Your task to perform on an android device: show emergency info Image 0: 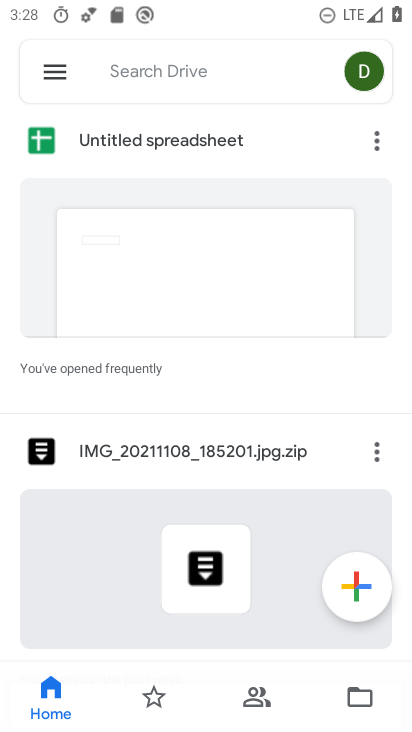
Step 0: press home button
Your task to perform on an android device: show emergency info Image 1: 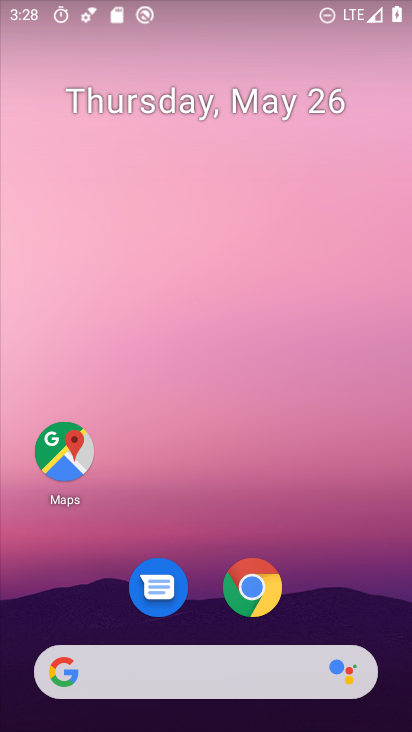
Step 1: drag from (301, 423) to (345, 125)
Your task to perform on an android device: show emergency info Image 2: 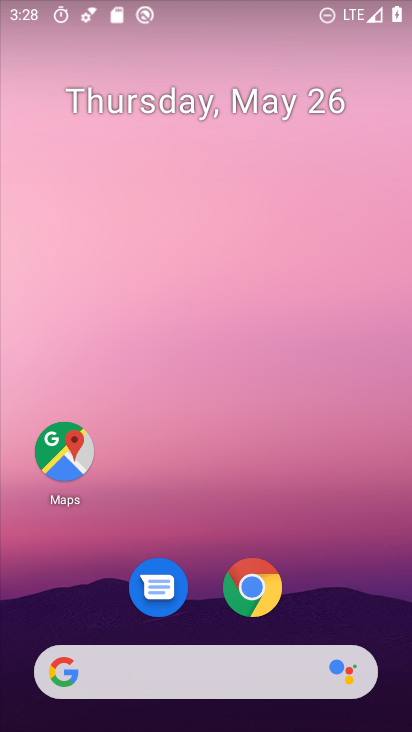
Step 2: drag from (294, 453) to (324, 74)
Your task to perform on an android device: show emergency info Image 3: 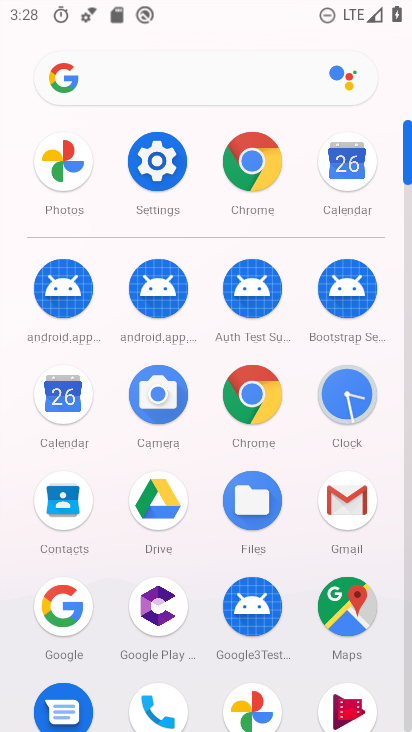
Step 3: click (166, 153)
Your task to perform on an android device: show emergency info Image 4: 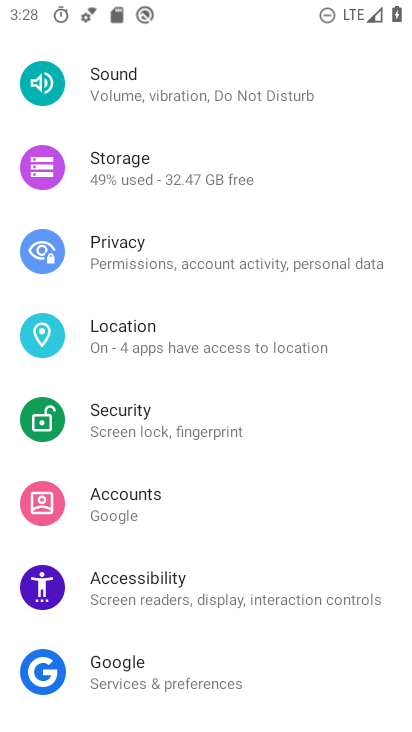
Step 4: drag from (227, 641) to (301, 166)
Your task to perform on an android device: show emergency info Image 5: 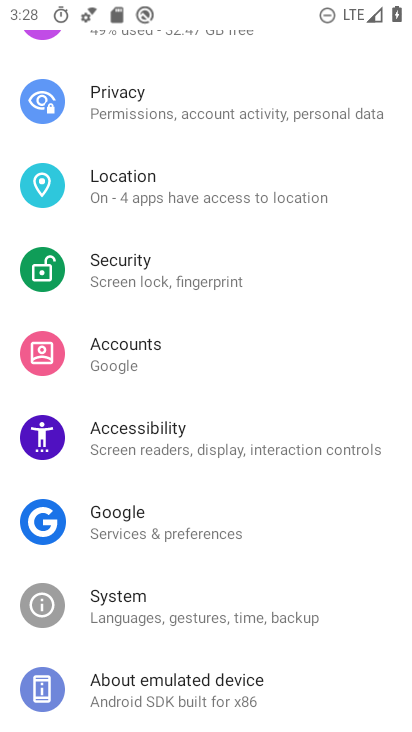
Step 5: click (159, 675)
Your task to perform on an android device: show emergency info Image 6: 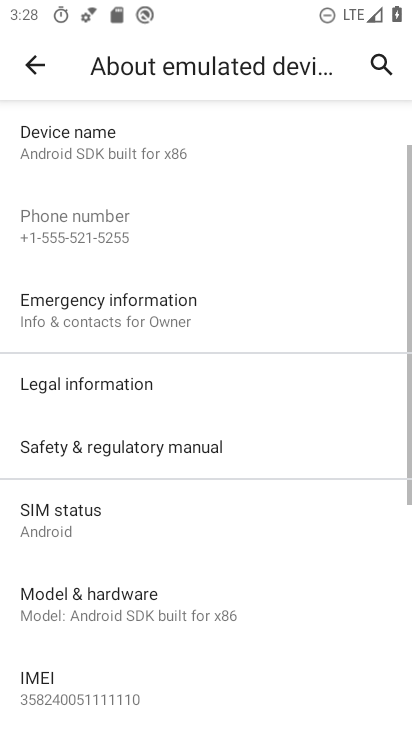
Step 6: click (156, 315)
Your task to perform on an android device: show emergency info Image 7: 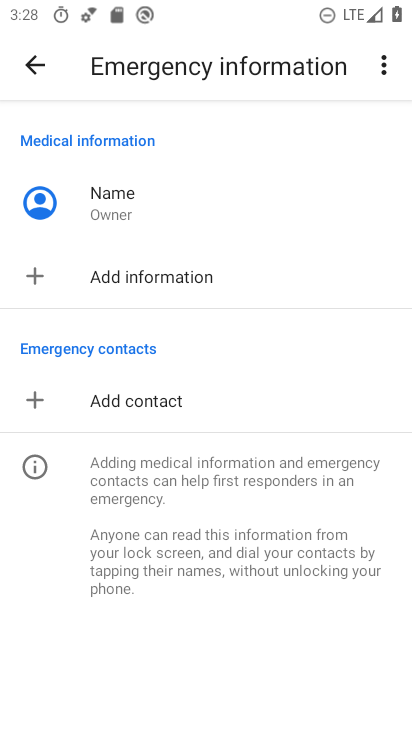
Step 7: task complete